Your task to perform on an android device: turn off javascript in the chrome app Image 0: 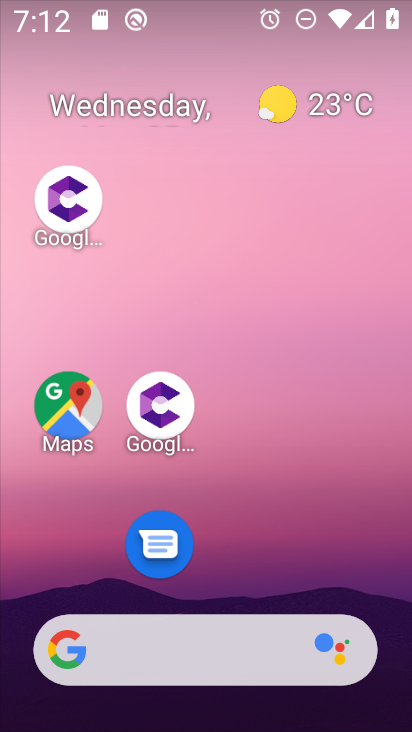
Step 0: drag from (247, 516) to (166, 37)
Your task to perform on an android device: turn off javascript in the chrome app Image 1: 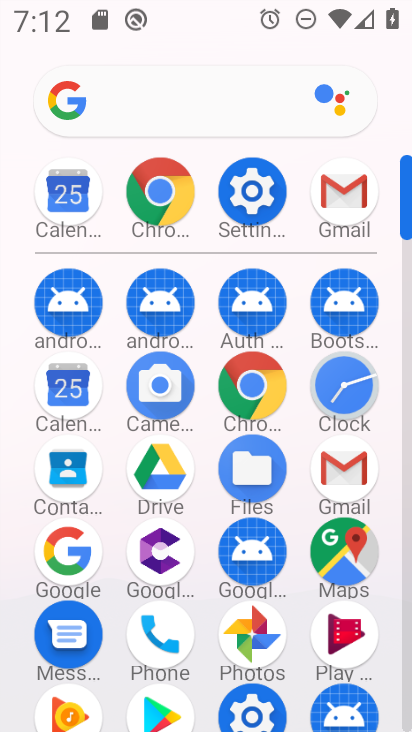
Step 1: click (166, 189)
Your task to perform on an android device: turn off javascript in the chrome app Image 2: 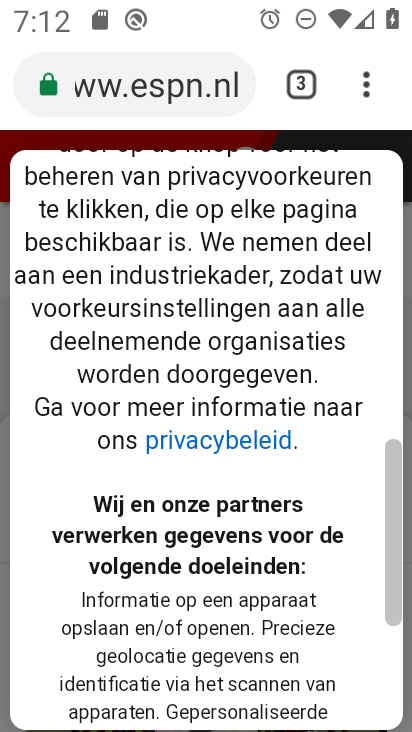
Step 2: click (366, 79)
Your task to perform on an android device: turn off javascript in the chrome app Image 3: 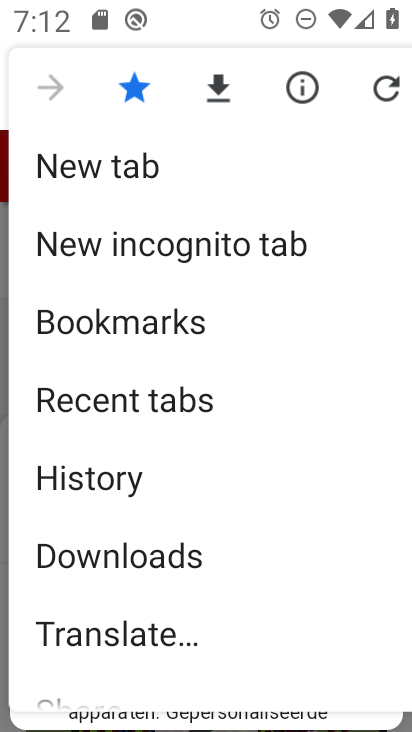
Step 3: drag from (244, 561) to (214, 184)
Your task to perform on an android device: turn off javascript in the chrome app Image 4: 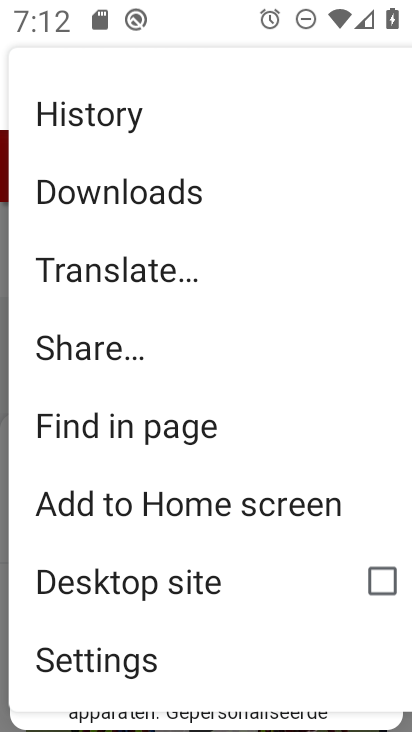
Step 4: click (124, 654)
Your task to perform on an android device: turn off javascript in the chrome app Image 5: 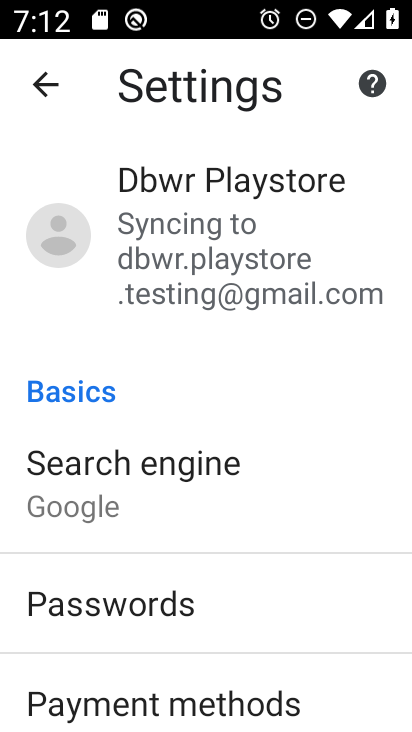
Step 5: drag from (241, 606) to (142, 102)
Your task to perform on an android device: turn off javascript in the chrome app Image 6: 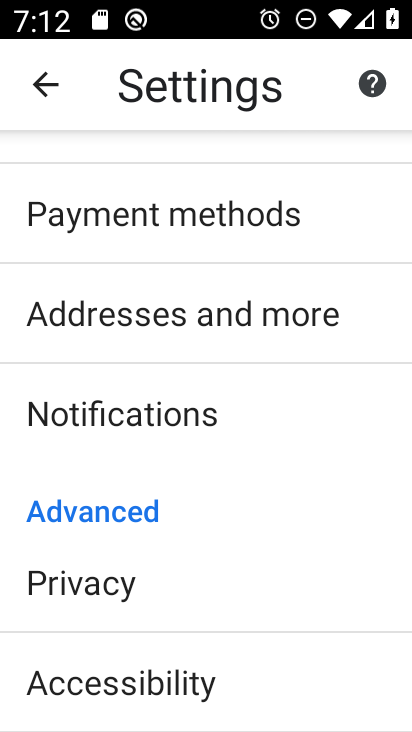
Step 6: drag from (256, 561) to (191, 149)
Your task to perform on an android device: turn off javascript in the chrome app Image 7: 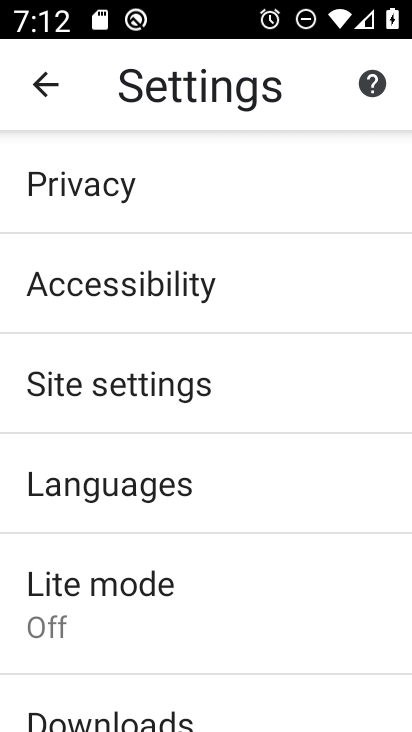
Step 7: click (160, 386)
Your task to perform on an android device: turn off javascript in the chrome app Image 8: 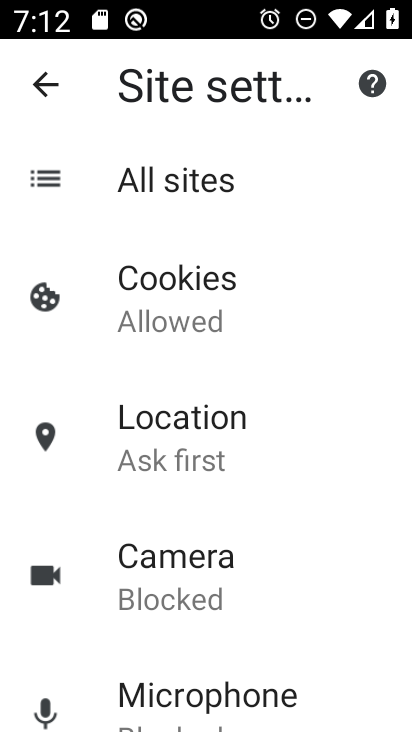
Step 8: drag from (293, 540) to (252, 153)
Your task to perform on an android device: turn off javascript in the chrome app Image 9: 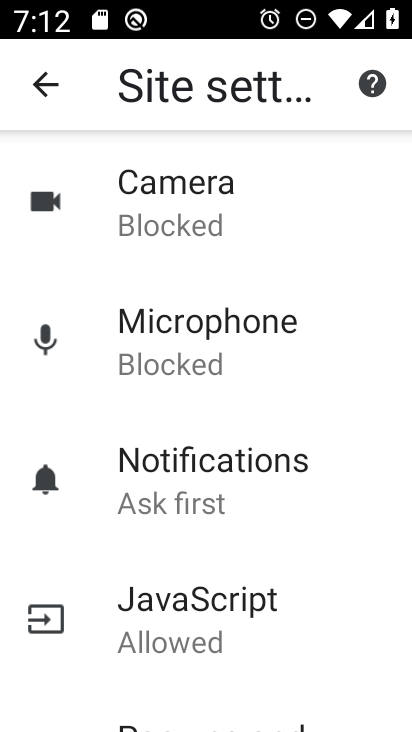
Step 9: click (178, 597)
Your task to perform on an android device: turn off javascript in the chrome app Image 10: 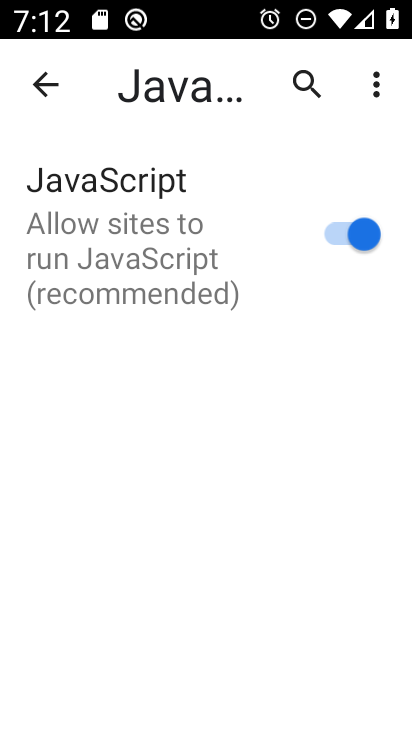
Step 10: click (368, 217)
Your task to perform on an android device: turn off javascript in the chrome app Image 11: 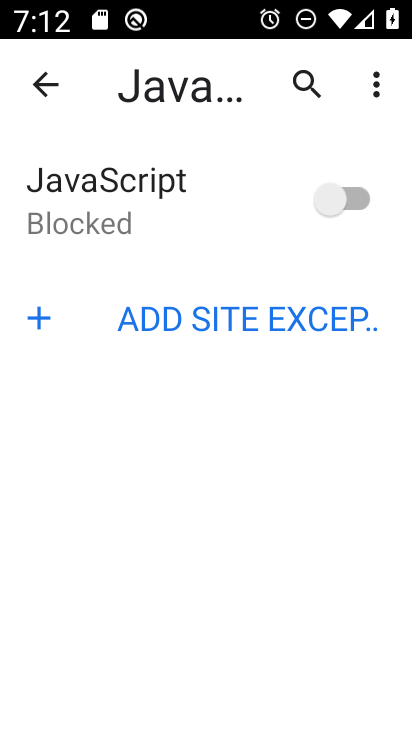
Step 11: task complete